Your task to perform on an android device: see tabs open on other devices in the chrome app Image 0: 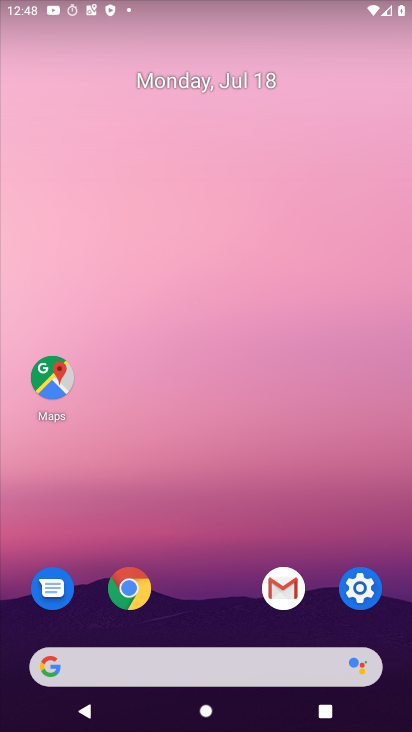
Step 0: click (139, 606)
Your task to perform on an android device: see tabs open on other devices in the chrome app Image 1: 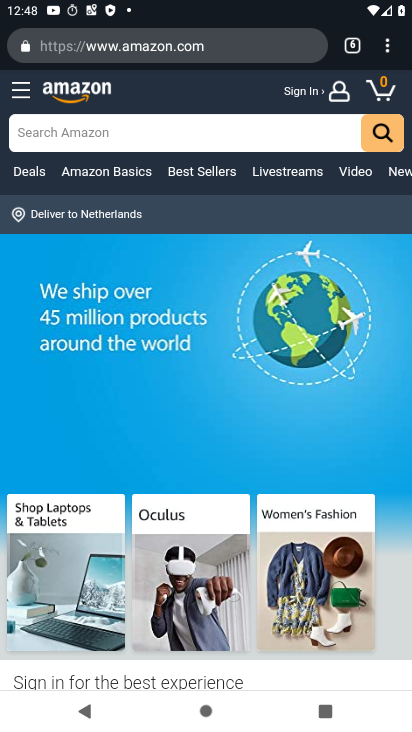
Step 1: click (385, 59)
Your task to perform on an android device: see tabs open on other devices in the chrome app Image 2: 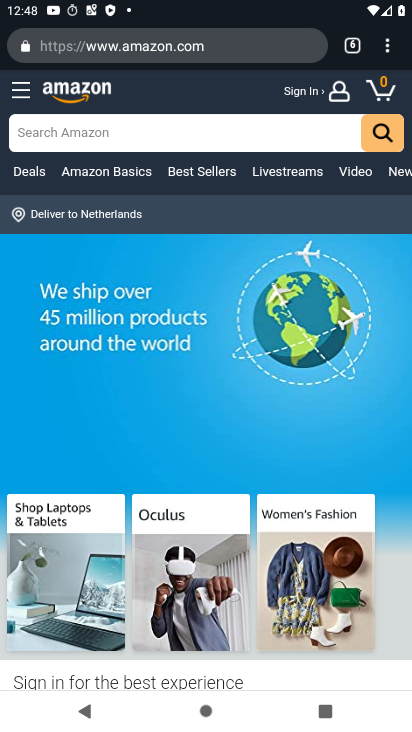
Step 2: click (349, 46)
Your task to perform on an android device: see tabs open on other devices in the chrome app Image 3: 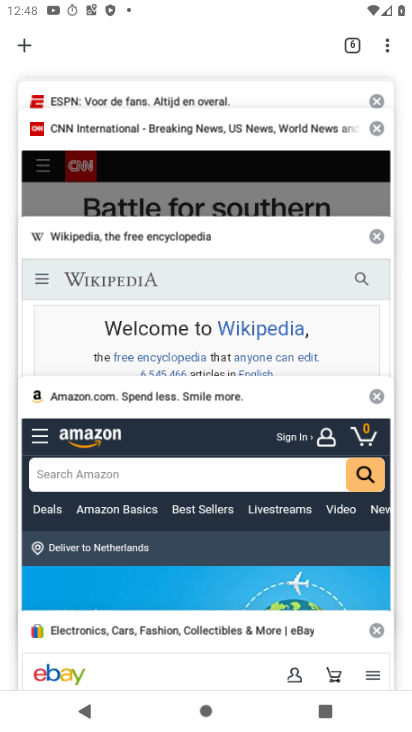
Step 3: click (28, 44)
Your task to perform on an android device: see tabs open on other devices in the chrome app Image 4: 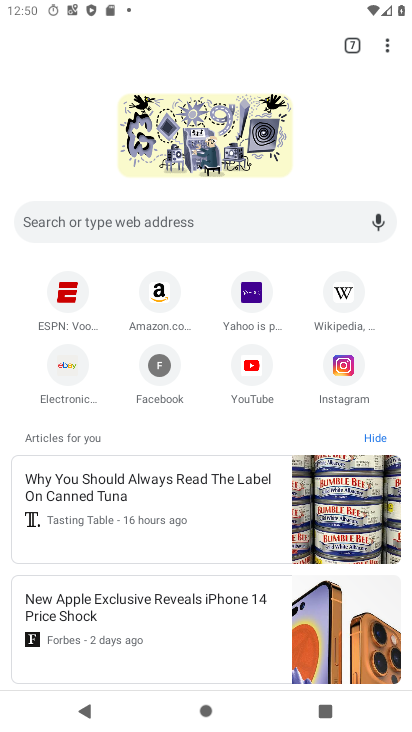
Step 4: task complete